Your task to perform on an android device: uninstall "Spotify" Image 0: 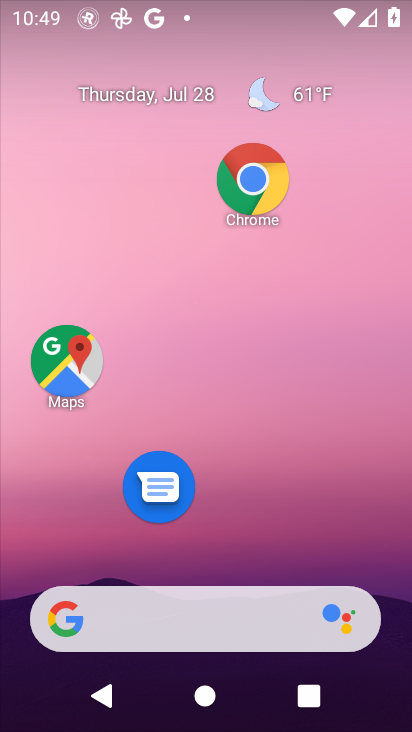
Step 0: drag from (244, 681) to (168, 232)
Your task to perform on an android device: uninstall "Spotify" Image 1: 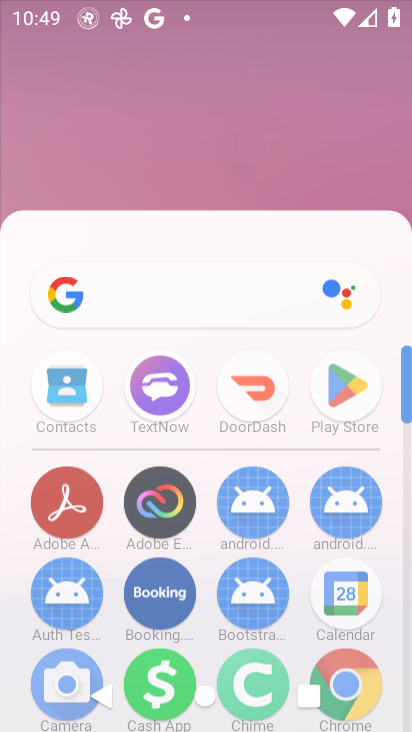
Step 1: drag from (251, 584) to (251, 262)
Your task to perform on an android device: uninstall "Spotify" Image 2: 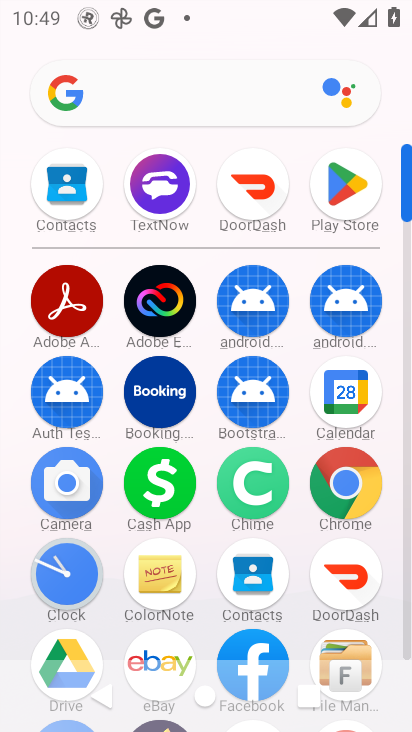
Step 2: click (335, 184)
Your task to perform on an android device: uninstall "Spotify" Image 3: 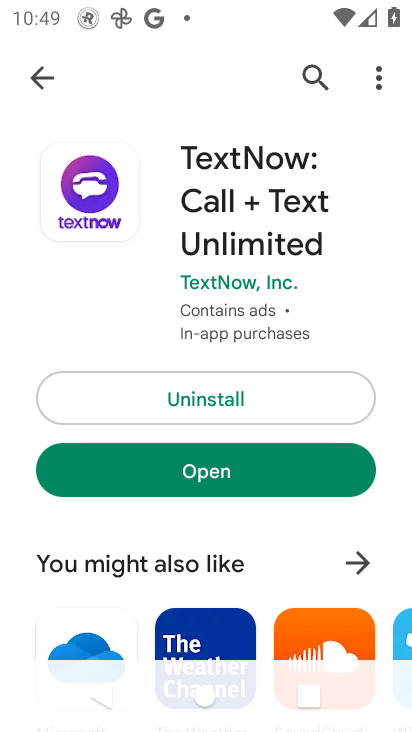
Step 3: click (52, 72)
Your task to perform on an android device: uninstall "Spotify" Image 4: 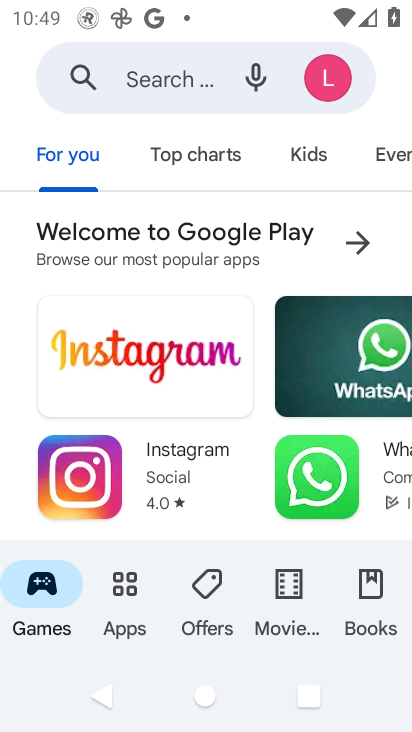
Step 4: click (111, 82)
Your task to perform on an android device: uninstall "Spotify" Image 5: 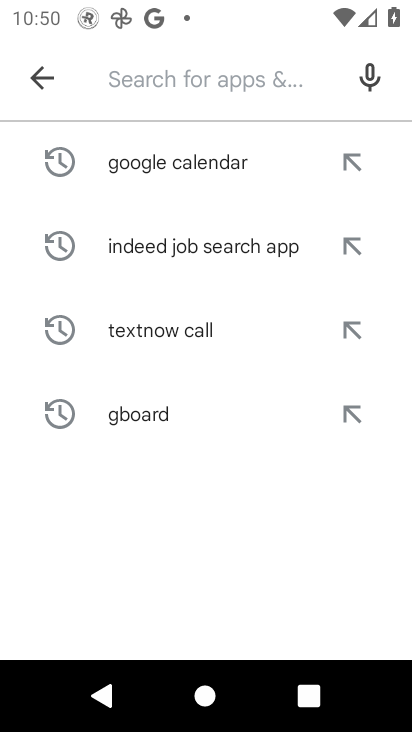
Step 5: type "spotify"
Your task to perform on an android device: uninstall "Spotify" Image 6: 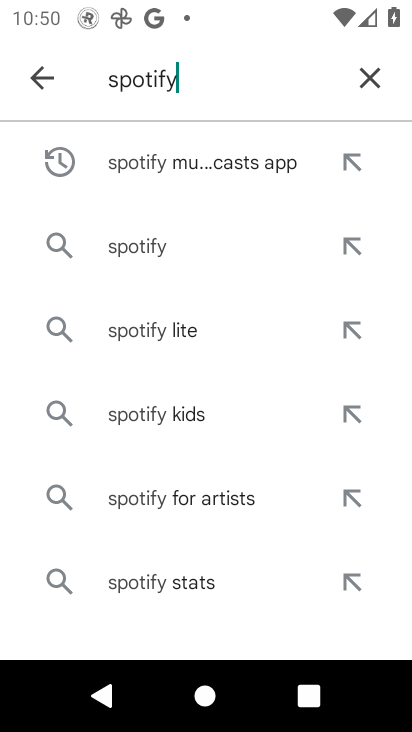
Step 6: click (142, 251)
Your task to perform on an android device: uninstall "Spotify" Image 7: 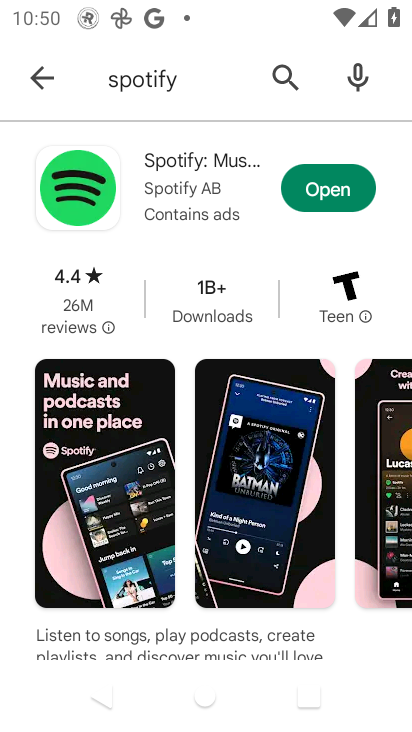
Step 7: click (342, 135)
Your task to perform on an android device: uninstall "Spotify" Image 8: 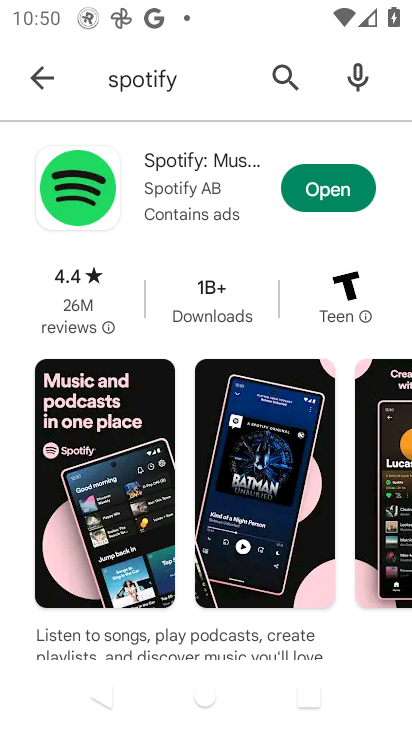
Step 8: click (348, 138)
Your task to perform on an android device: uninstall "Spotify" Image 9: 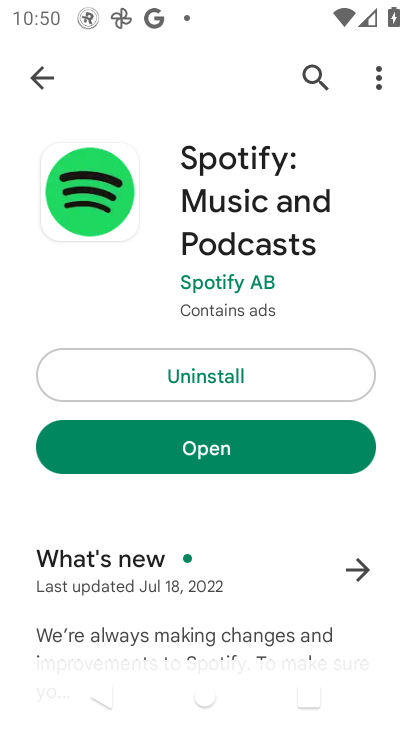
Step 9: click (233, 367)
Your task to perform on an android device: uninstall "Spotify" Image 10: 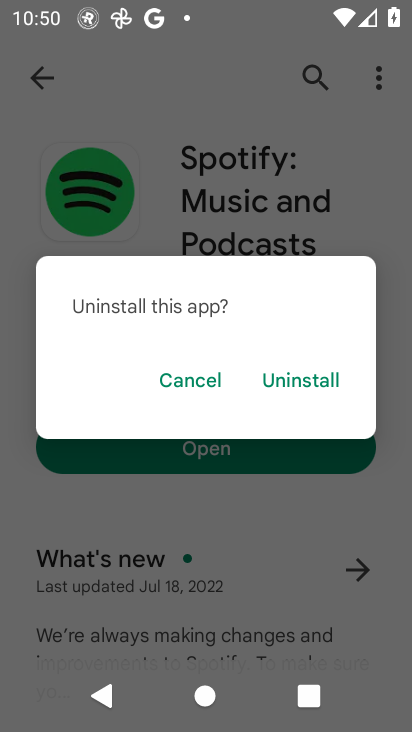
Step 10: click (285, 385)
Your task to perform on an android device: uninstall "Spotify" Image 11: 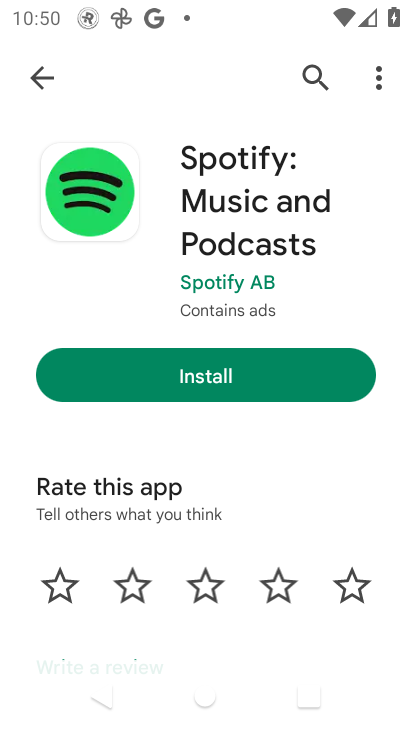
Step 11: task complete